Your task to perform on an android device: Search for a dining table on crateandbarrel.com Image 0: 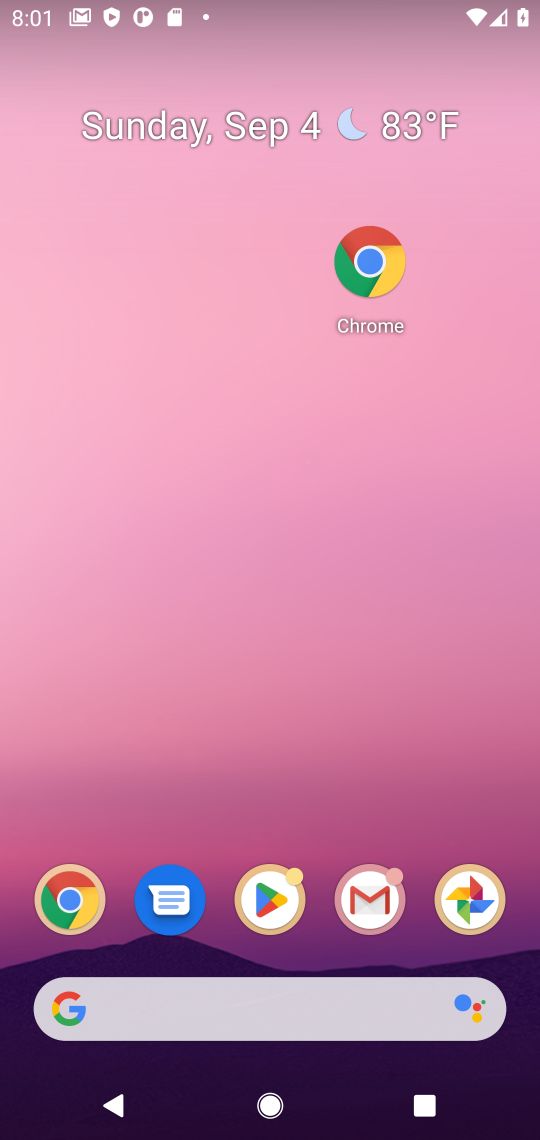
Step 0: drag from (302, 458) to (270, 200)
Your task to perform on an android device: Search for a dining table on crateandbarrel.com Image 1: 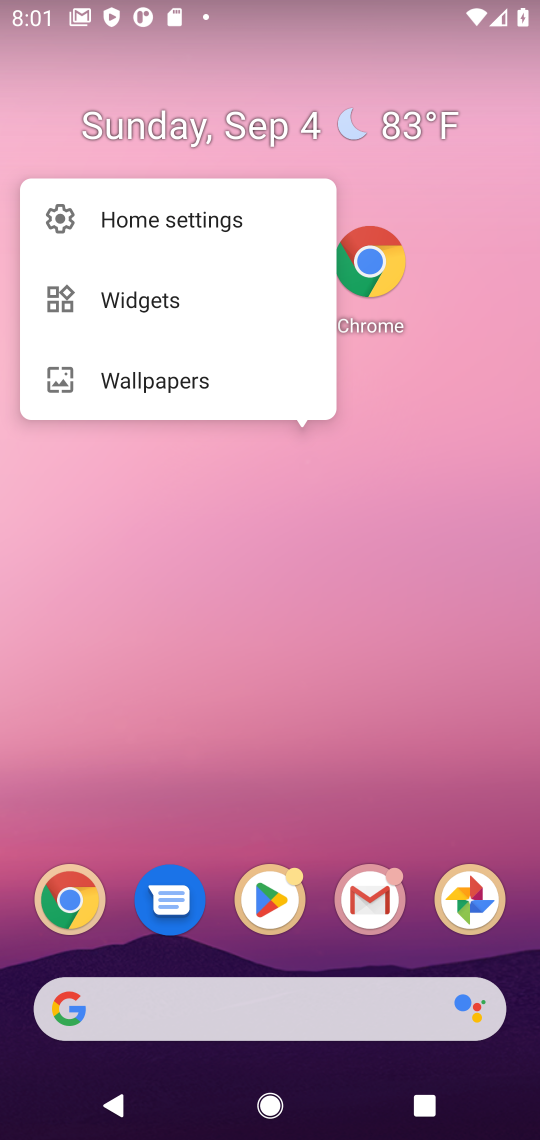
Step 1: click (311, 757)
Your task to perform on an android device: Search for a dining table on crateandbarrel.com Image 2: 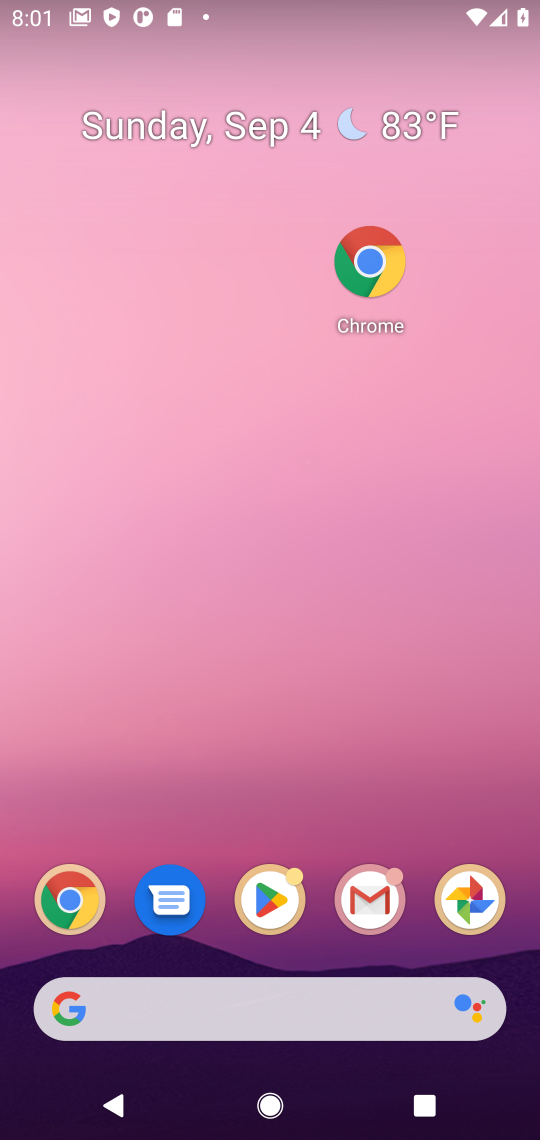
Step 2: drag from (70, 66) to (386, 80)
Your task to perform on an android device: Search for a dining table on crateandbarrel.com Image 3: 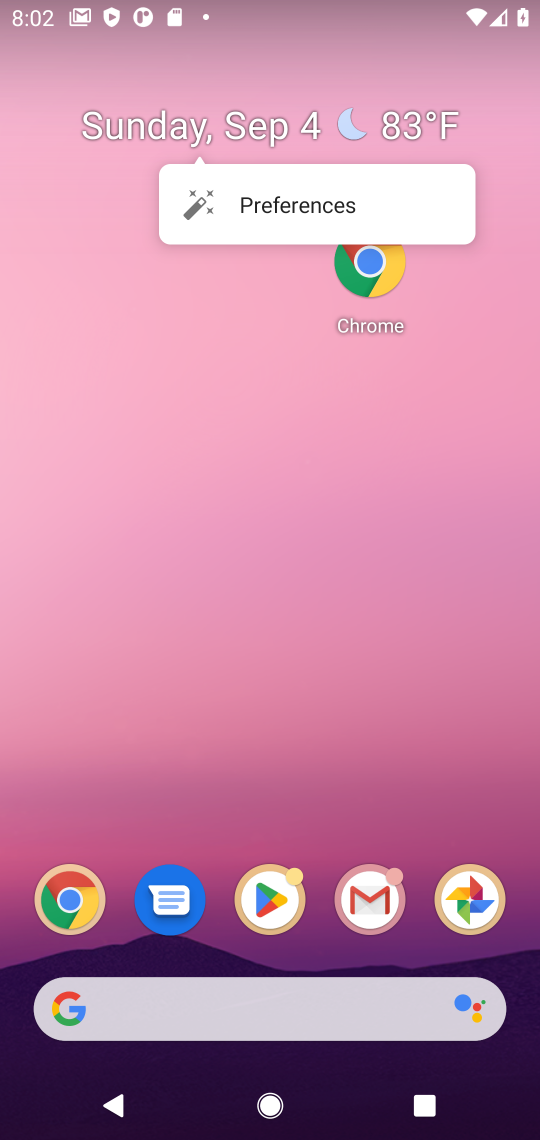
Step 3: click (389, 711)
Your task to perform on an android device: Search for a dining table on crateandbarrel.com Image 4: 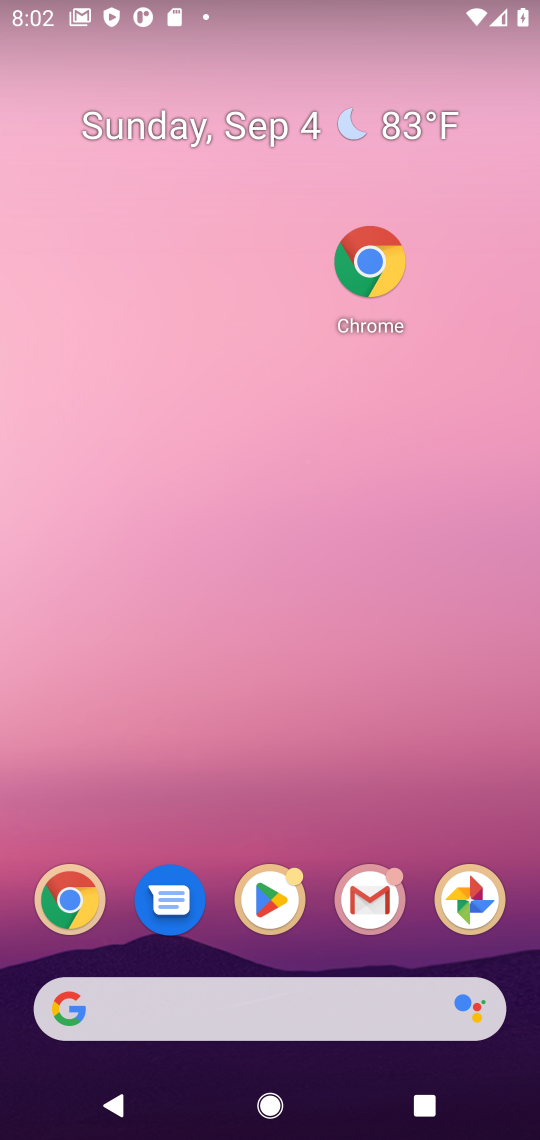
Step 4: drag from (318, 968) to (187, 246)
Your task to perform on an android device: Search for a dining table on crateandbarrel.com Image 5: 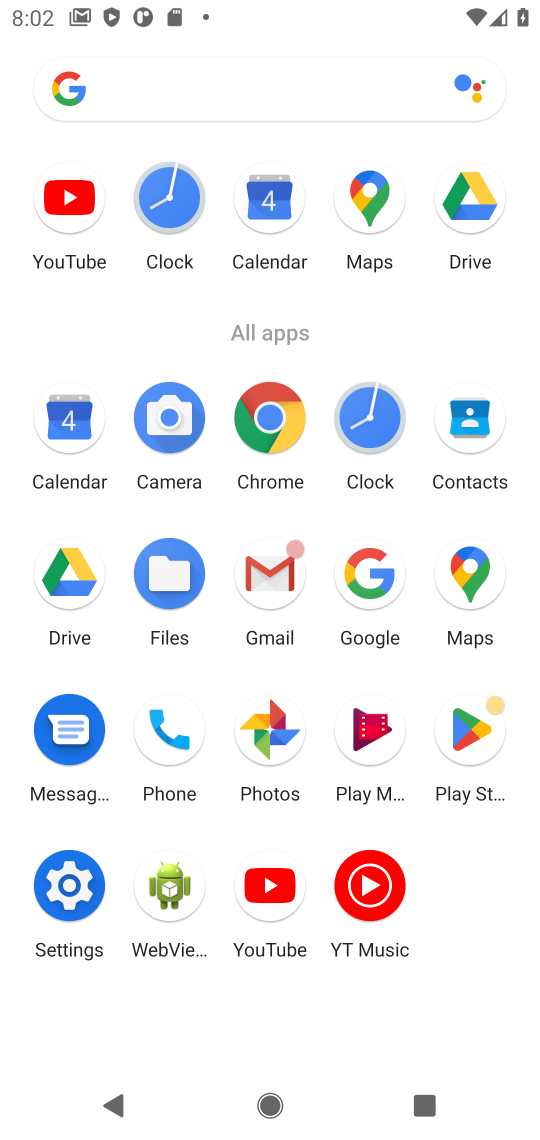
Step 5: click (264, 436)
Your task to perform on an android device: Search for a dining table on crateandbarrel.com Image 6: 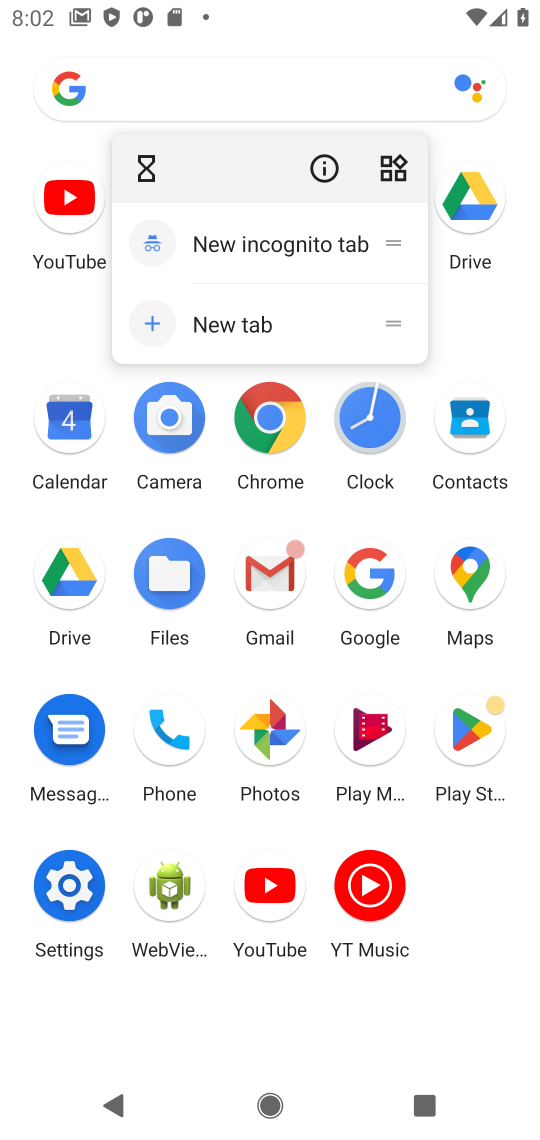
Step 6: click (488, 838)
Your task to perform on an android device: Search for a dining table on crateandbarrel.com Image 7: 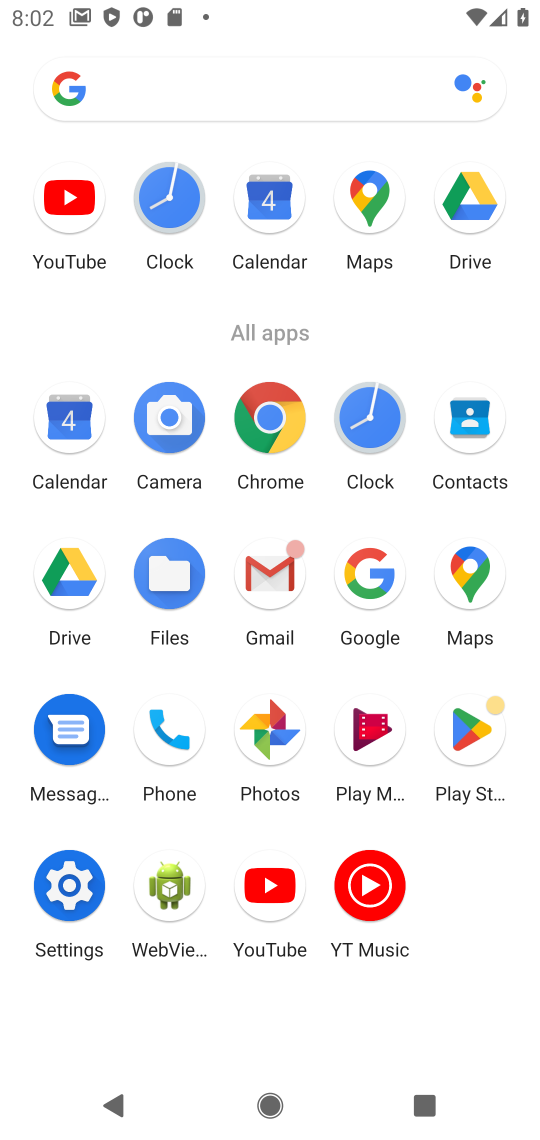
Step 7: click (267, 420)
Your task to perform on an android device: Search for a dining table on crateandbarrel.com Image 8: 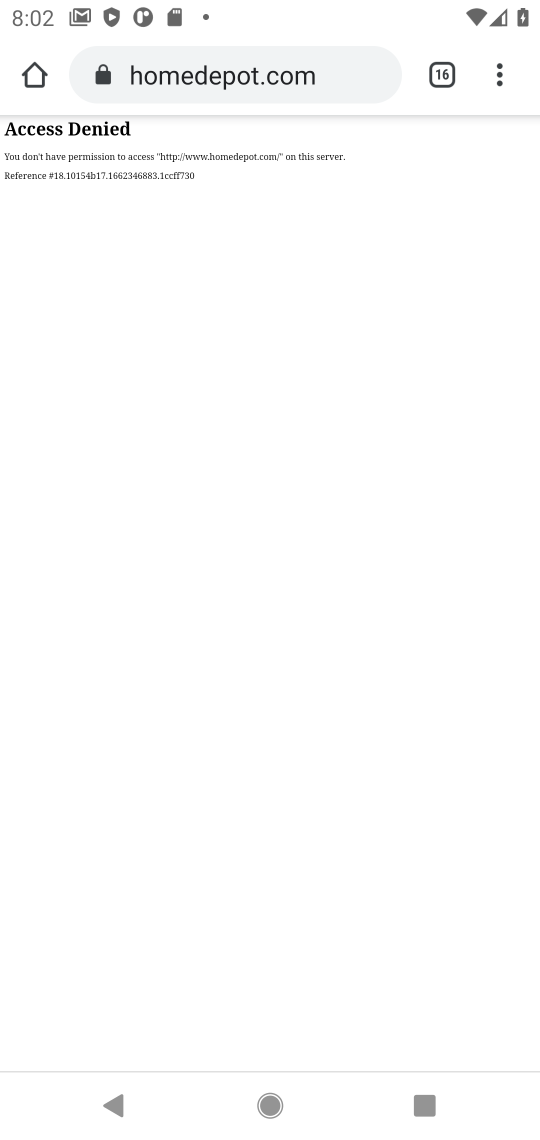
Step 8: click (437, 74)
Your task to perform on an android device: Search for a dining table on crateandbarrel.com Image 9: 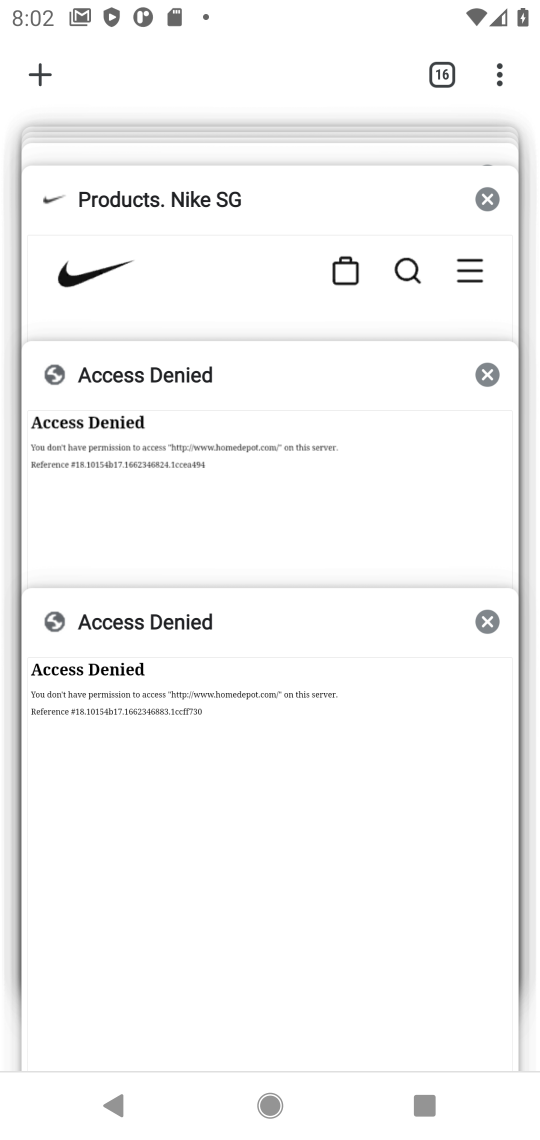
Step 9: click (33, 77)
Your task to perform on an android device: Search for a dining table on crateandbarrel.com Image 10: 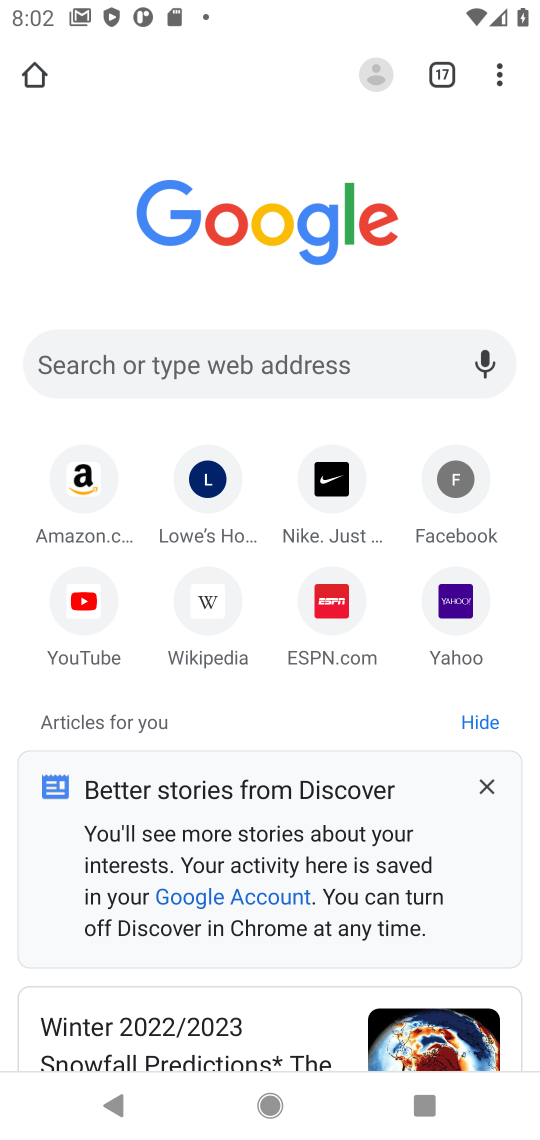
Step 10: click (205, 374)
Your task to perform on an android device: Search for a dining table on crateandbarrel.com Image 11: 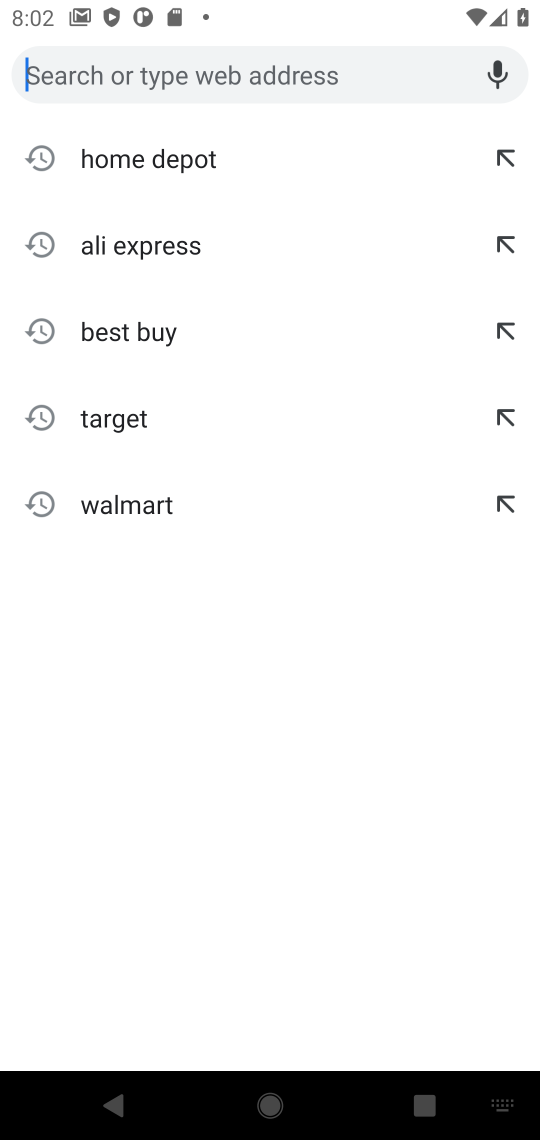
Step 11: type "crateandbarrel.com"
Your task to perform on an android device: Search for a dining table on crateandbarrel.com Image 12: 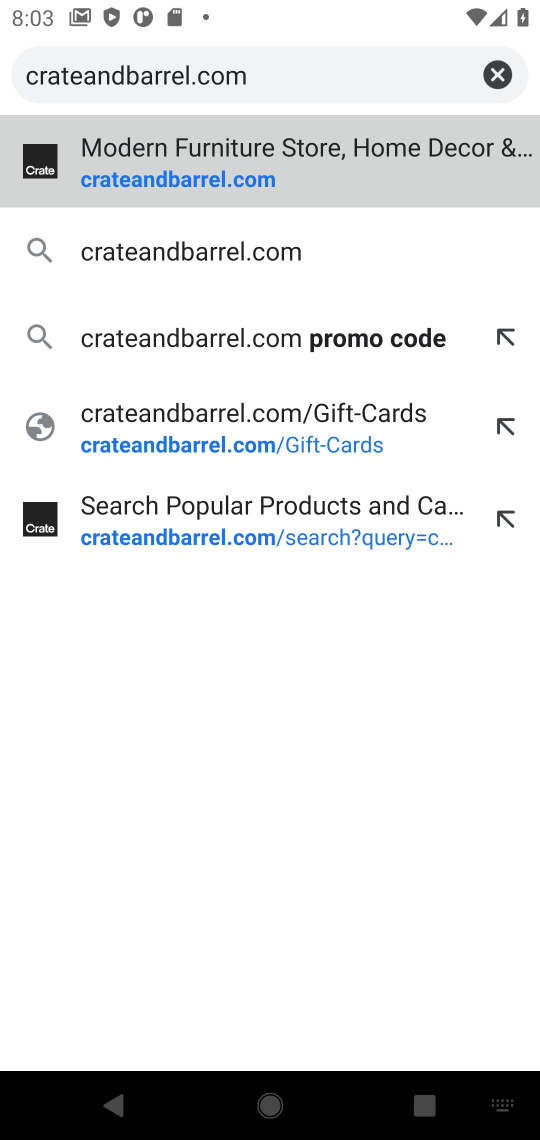
Step 12: click (220, 259)
Your task to perform on an android device: Search for a dining table on crateandbarrel.com Image 13: 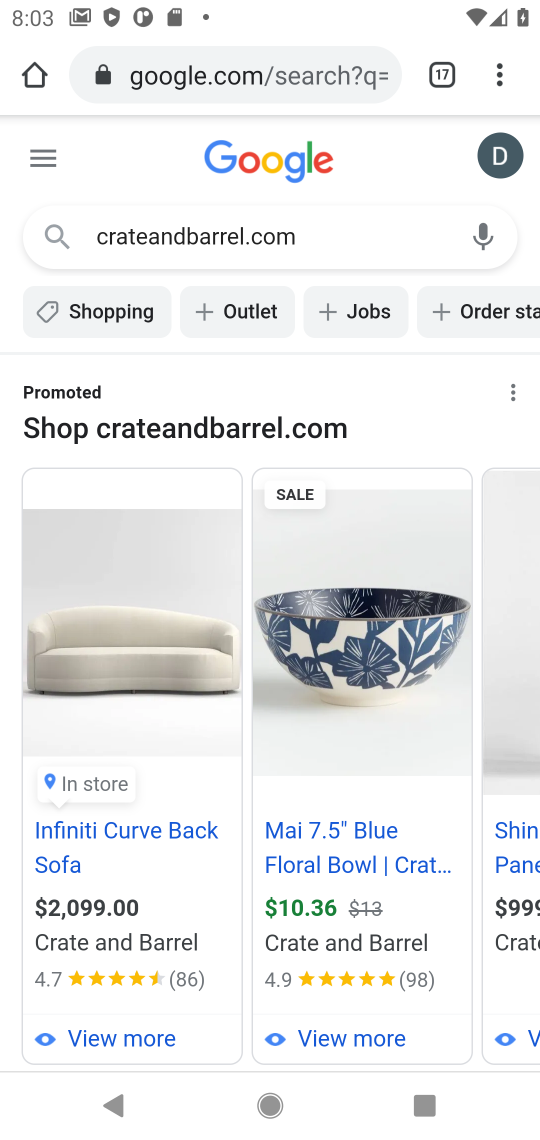
Step 13: drag from (237, 1022) to (223, 180)
Your task to perform on an android device: Search for a dining table on crateandbarrel.com Image 14: 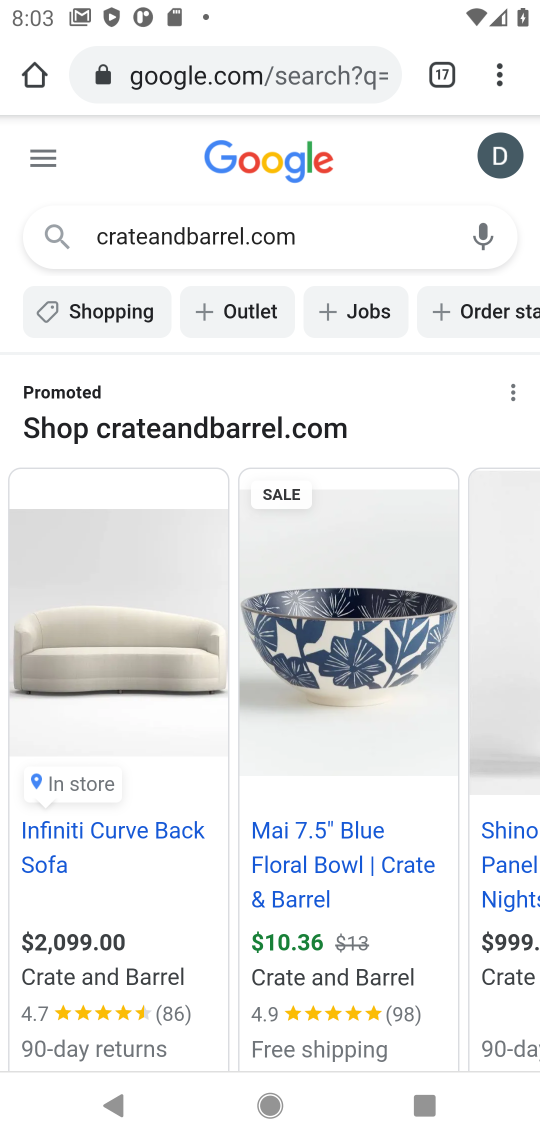
Step 14: drag from (229, 990) to (226, 383)
Your task to perform on an android device: Search for a dining table on crateandbarrel.com Image 15: 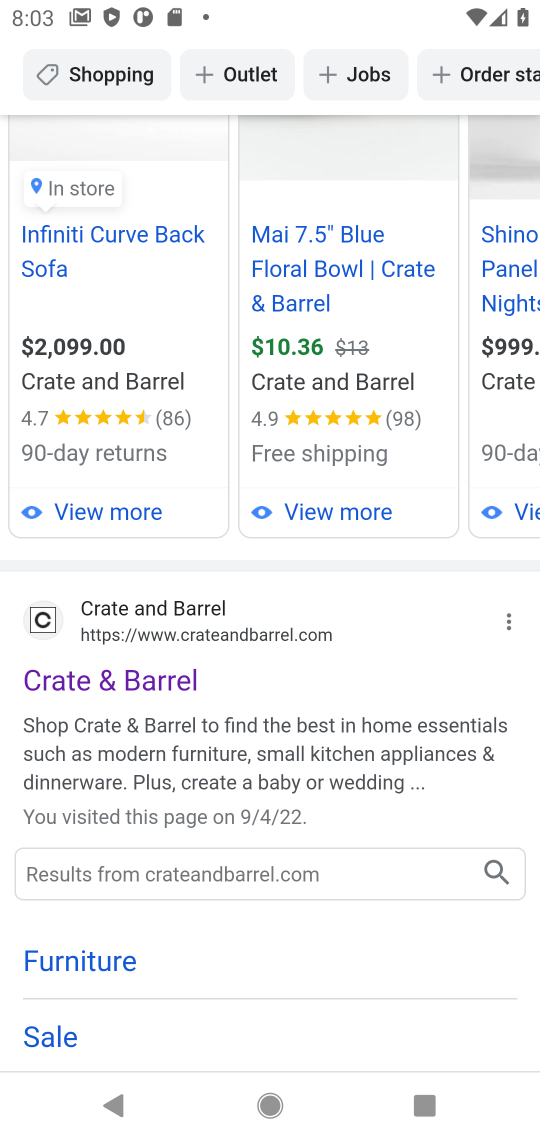
Step 15: click (109, 689)
Your task to perform on an android device: Search for a dining table on crateandbarrel.com Image 16: 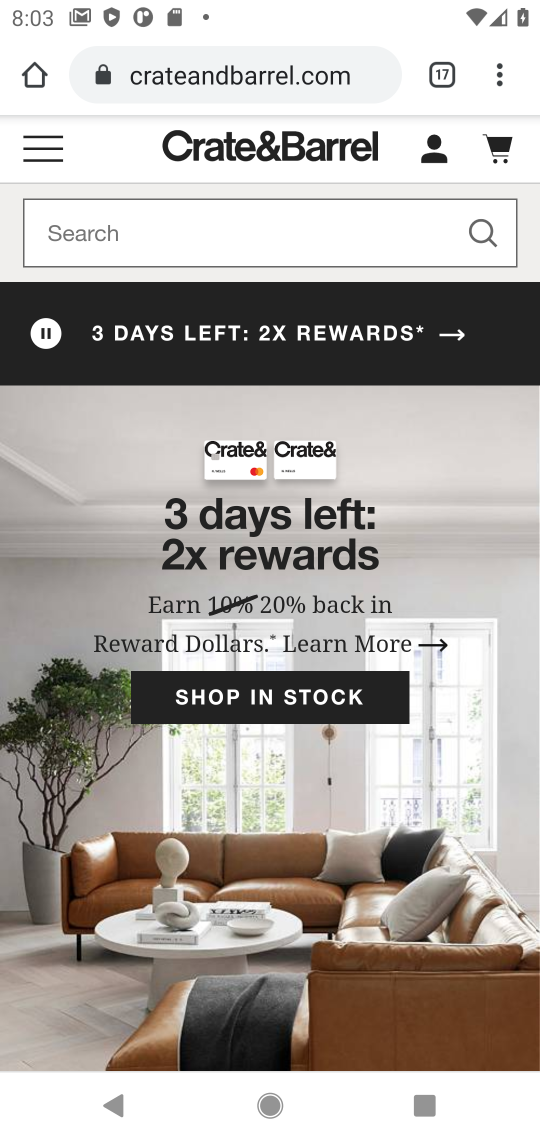
Step 16: click (82, 246)
Your task to perform on an android device: Search for a dining table on crateandbarrel.com Image 17: 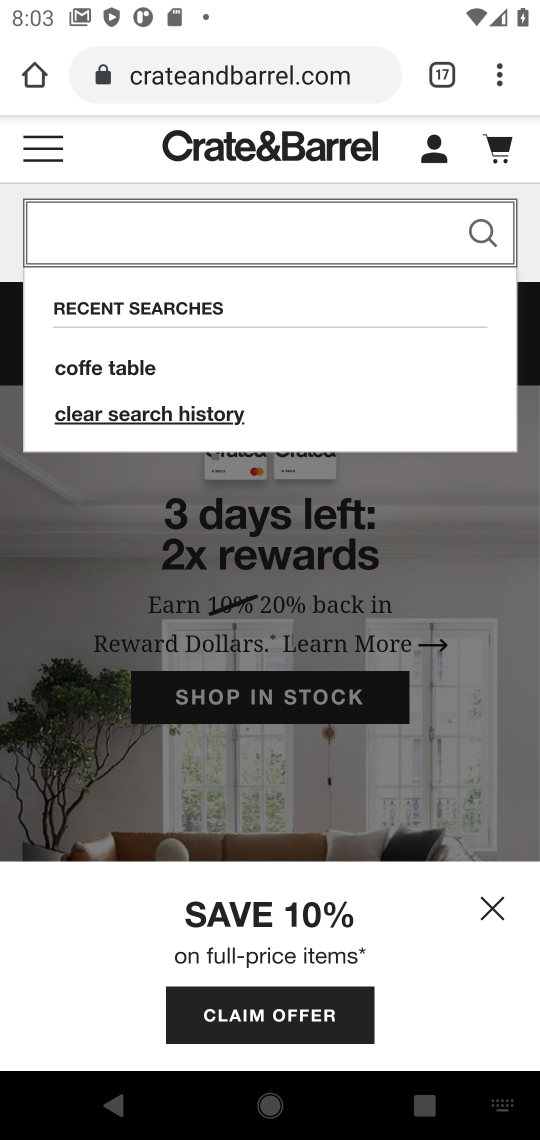
Step 17: type "dining table"
Your task to perform on an android device: Search for a dining table on crateandbarrel.com Image 18: 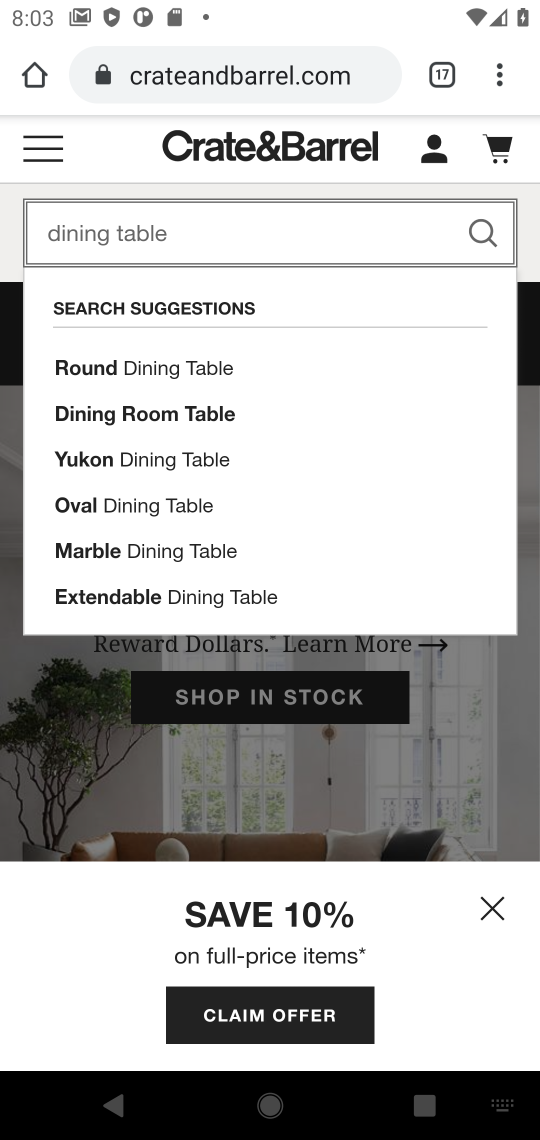
Step 18: click (489, 234)
Your task to perform on an android device: Search for a dining table on crateandbarrel.com Image 19: 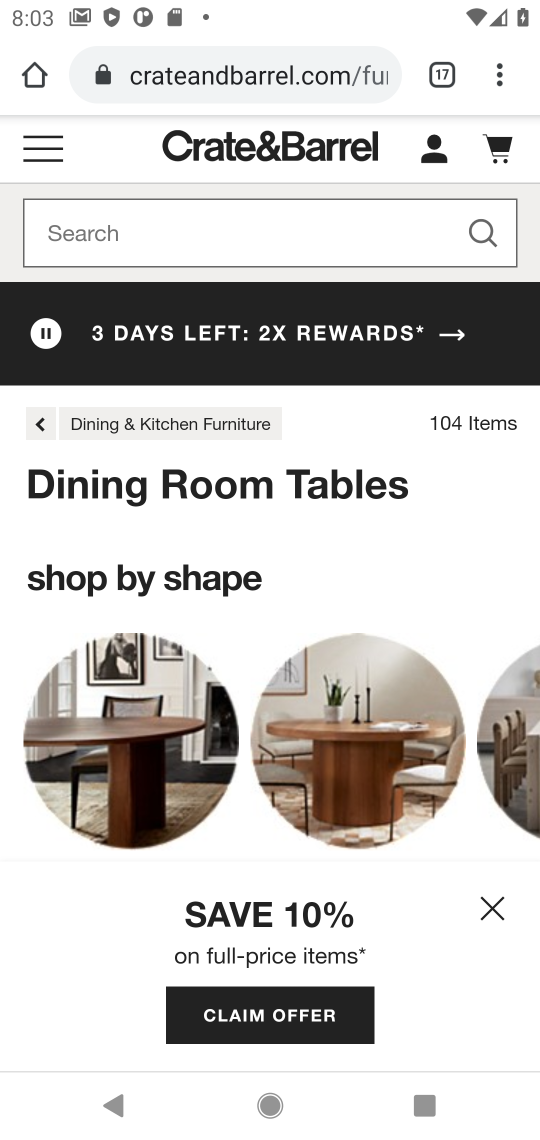
Step 19: task complete